Your task to perform on an android device: Is it going to rain today? Image 0: 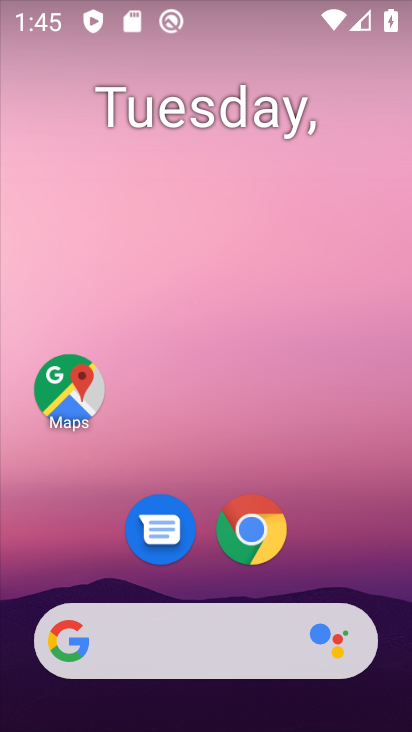
Step 0: drag from (398, 603) to (316, 65)
Your task to perform on an android device: Is it going to rain today? Image 1: 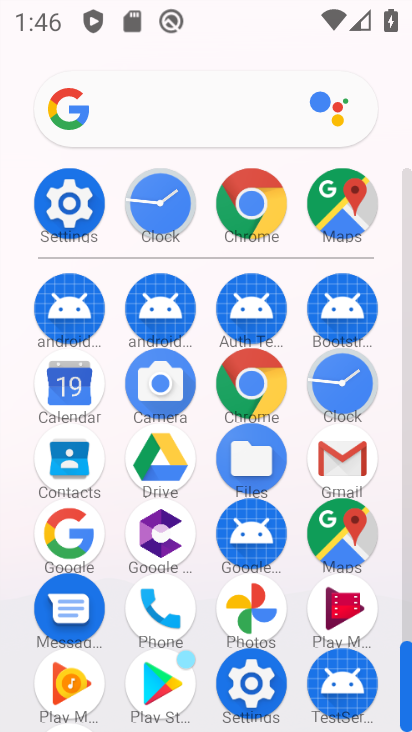
Step 1: task complete